Your task to perform on an android device: Open settings Image 0: 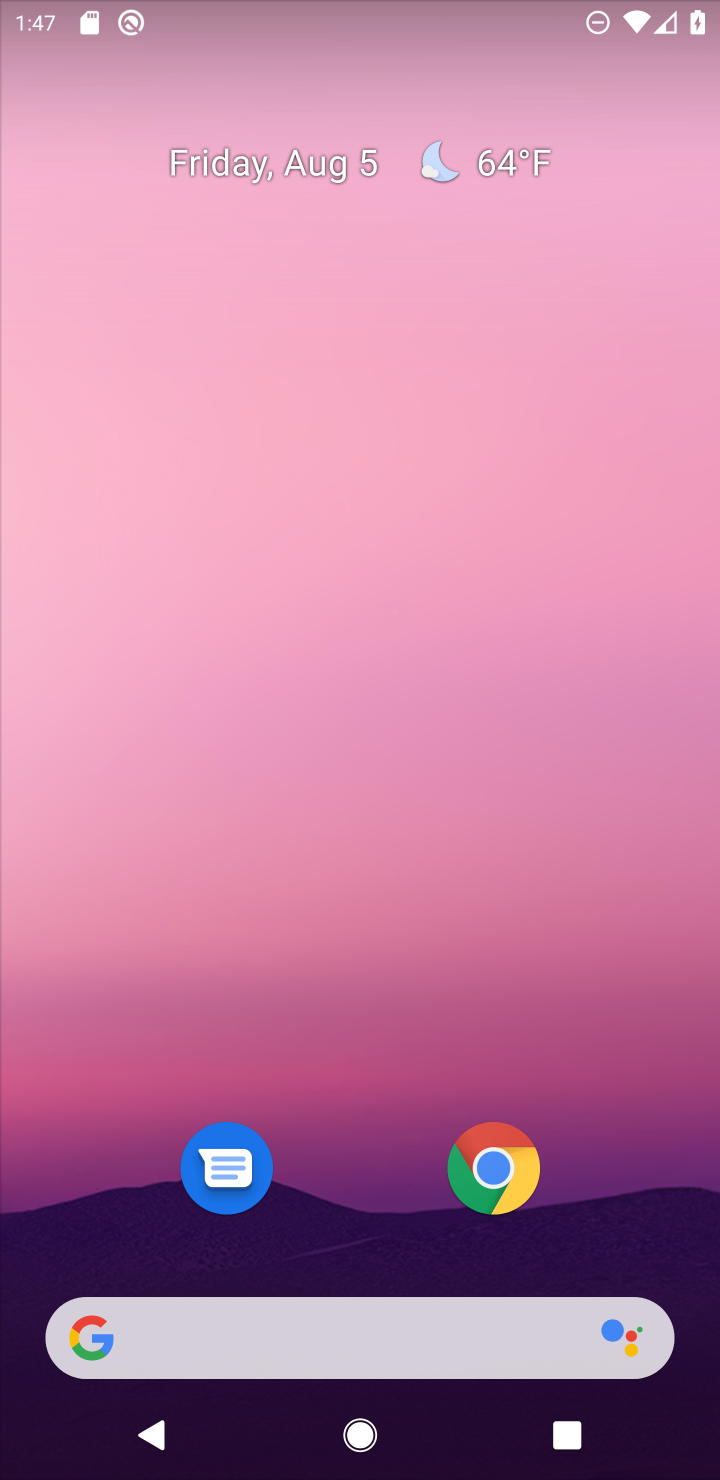
Step 0: drag from (603, 961) to (375, 56)
Your task to perform on an android device: Open settings Image 1: 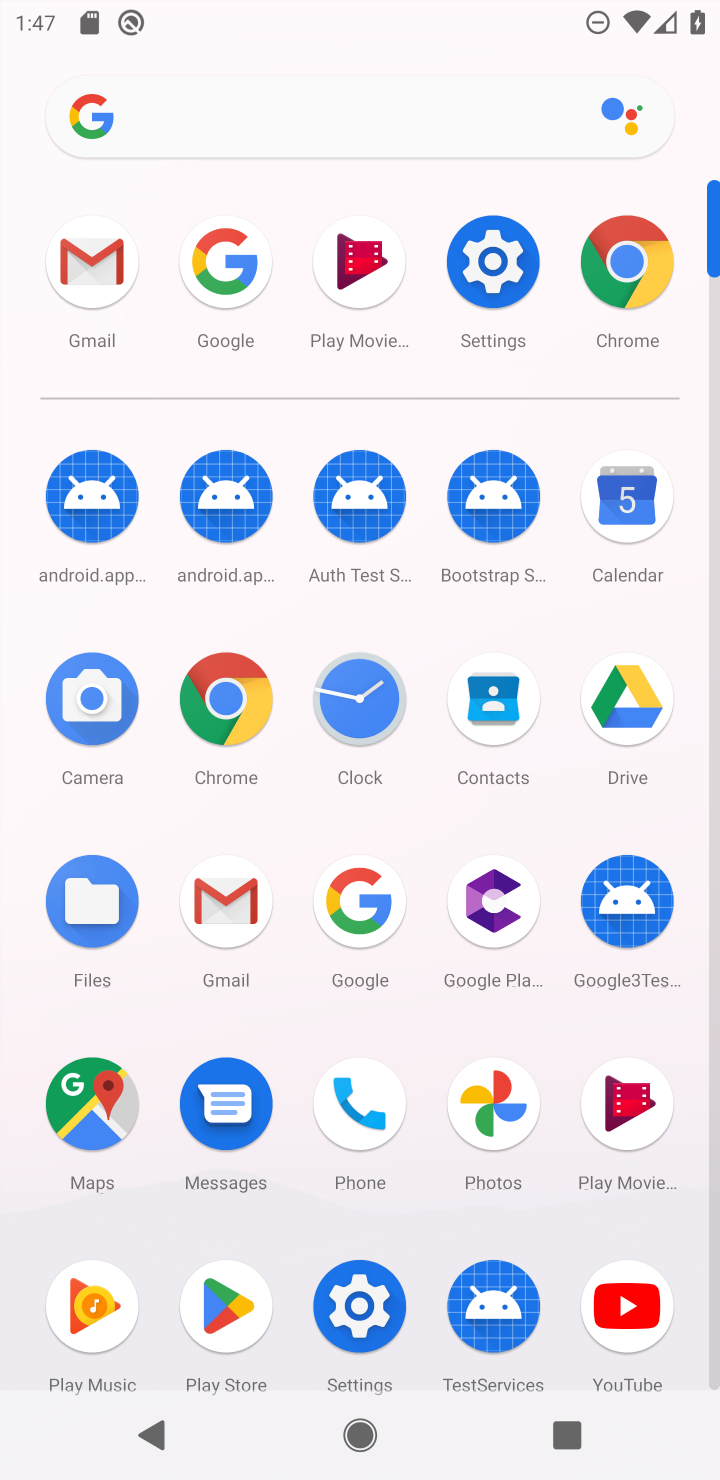
Step 1: click (356, 1329)
Your task to perform on an android device: Open settings Image 2: 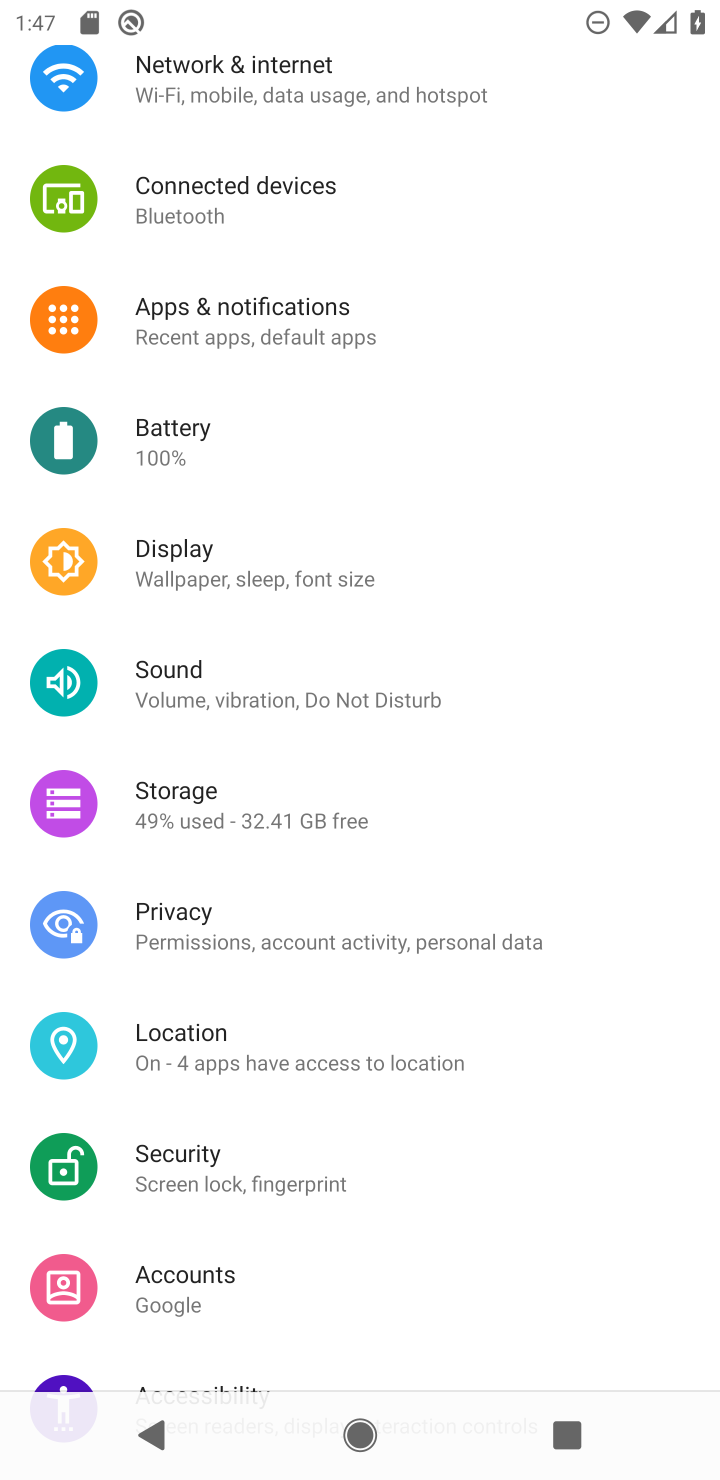
Step 2: task complete